Your task to perform on an android device: turn on notifications settings in the gmail app Image 0: 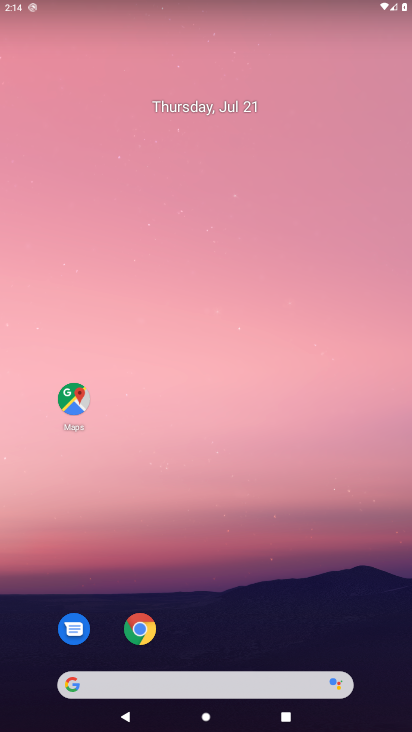
Step 0: click (61, 391)
Your task to perform on an android device: turn on notifications settings in the gmail app Image 1: 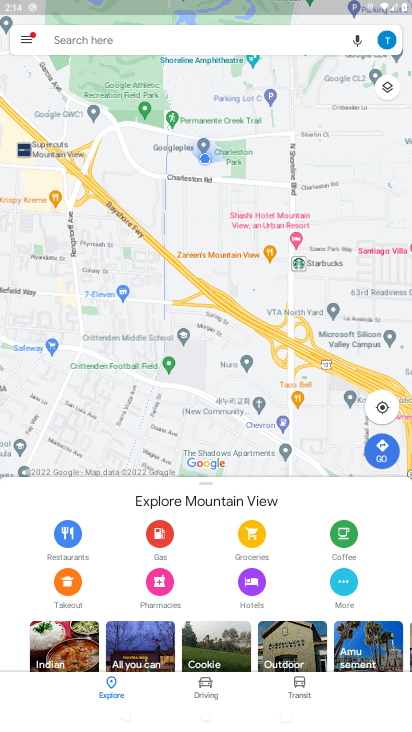
Step 1: press home button
Your task to perform on an android device: turn on notifications settings in the gmail app Image 2: 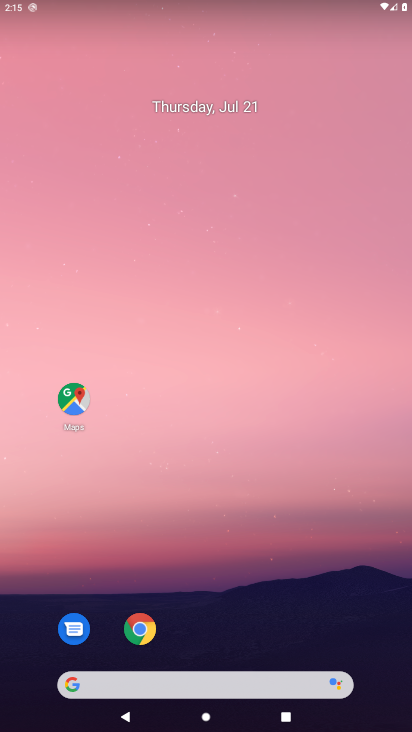
Step 2: drag from (4, 681) to (404, 509)
Your task to perform on an android device: turn on notifications settings in the gmail app Image 3: 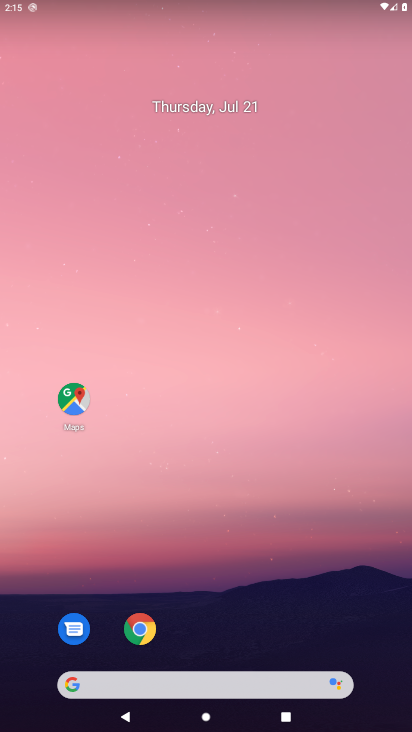
Step 3: click (129, 412)
Your task to perform on an android device: turn on notifications settings in the gmail app Image 4: 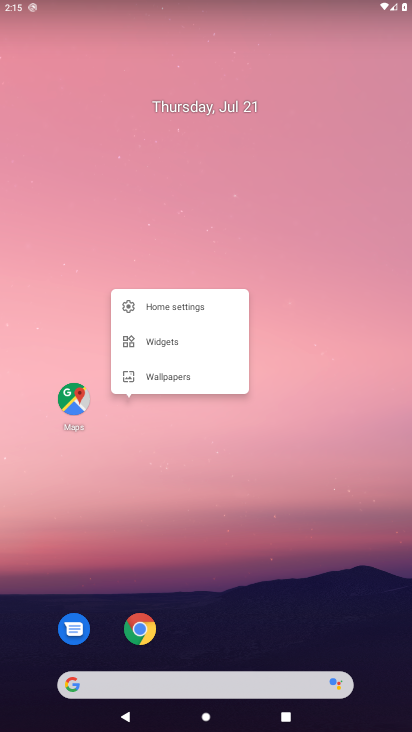
Step 4: drag from (22, 714) to (198, 71)
Your task to perform on an android device: turn on notifications settings in the gmail app Image 5: 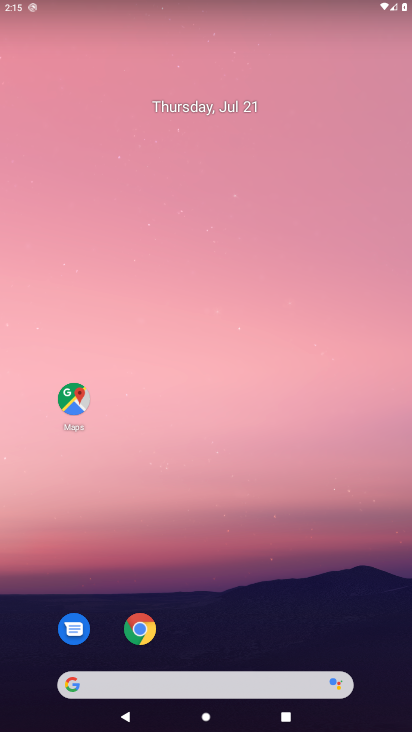
Step 5: drag from (18, 684) to (333, 26)
Your task to perform on an android device: turn on notifications settings in the gmail app Image 6: 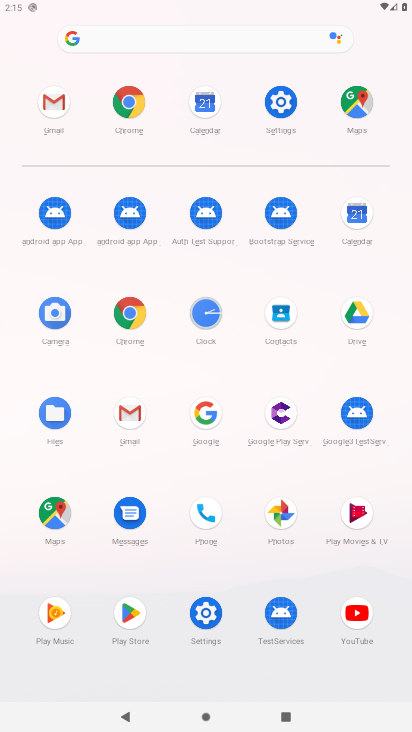
Step 6: click (135, 416)
Your task to perform on an android device: turn on notifications settings in the gmail app Image 7: 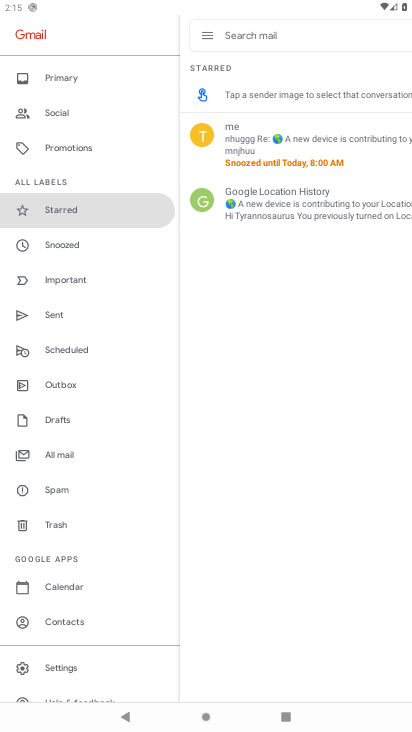
Step 7: click (68, 662)
Your task to perform on an android device: turn on notifications settings in the gmail app Image 8: 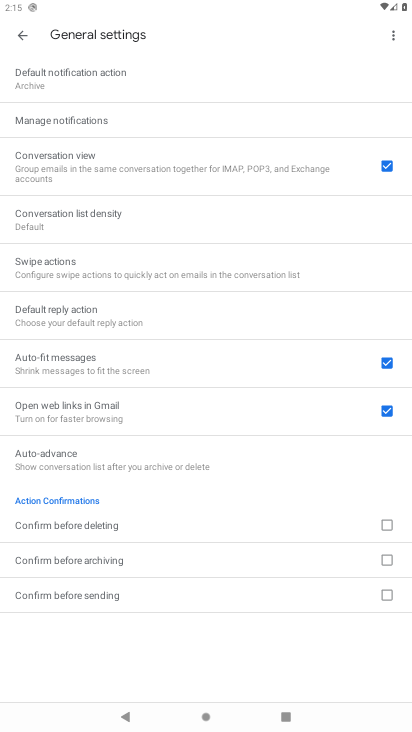
Step 8: click (69, 125)
Your task to perform on an android device: turn on notifications settings in the gmail app Image 9: 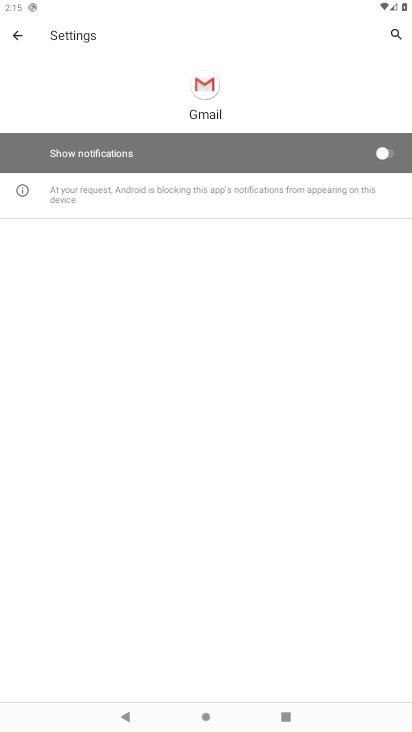
Step 9: click (384, 152)
Your task to perform on an android device: turn on notifications settings in the gmail app Image 10: 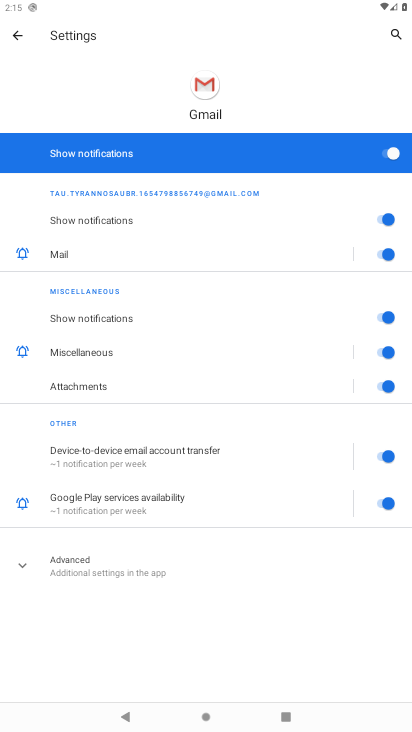
Step 10: task complete